Your task to perform on an android device: turn notification dots off Image 0: 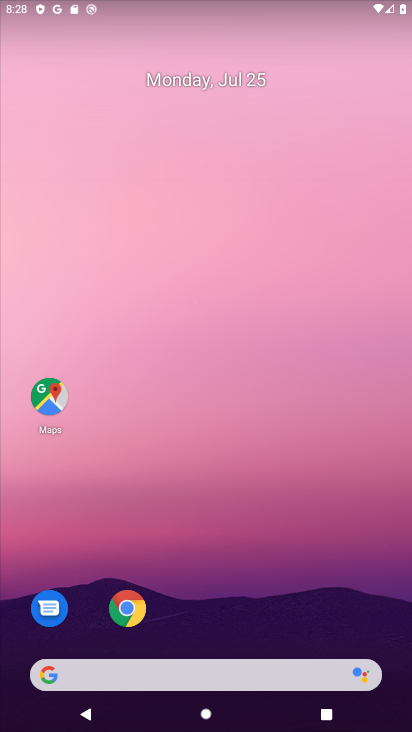
Step 0: drag from (204, 624) to (218, 81)
Your task to perform on an android device: turn notification dots off Image 1: 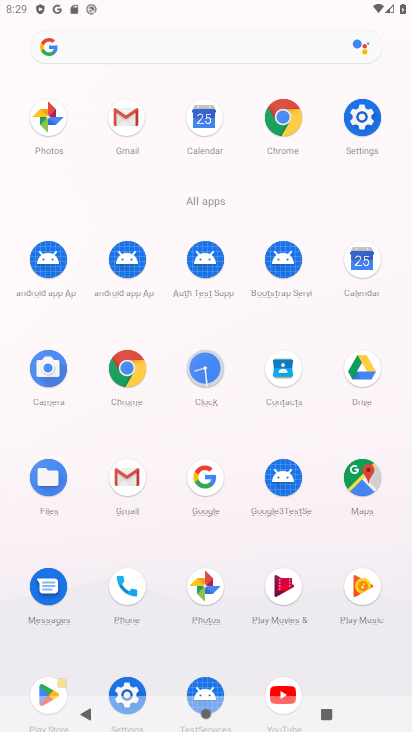
Step 1: click (361, 110)
Your task to perform on an android device: turn notification dots off Image 2: 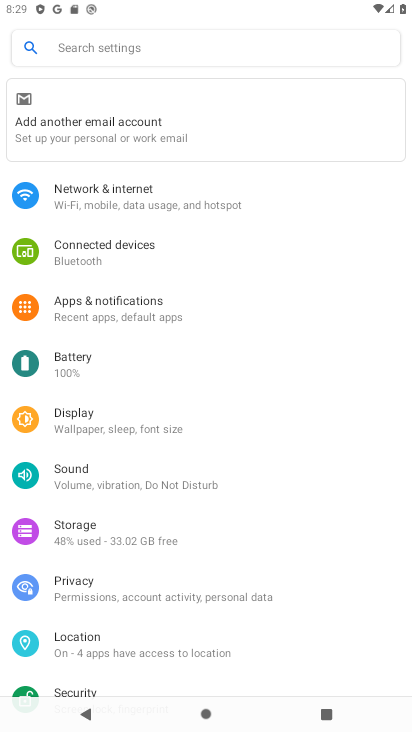
Step 2: click (140, 45)
Your task to perform on an android device: turn notification dots off Image 3: 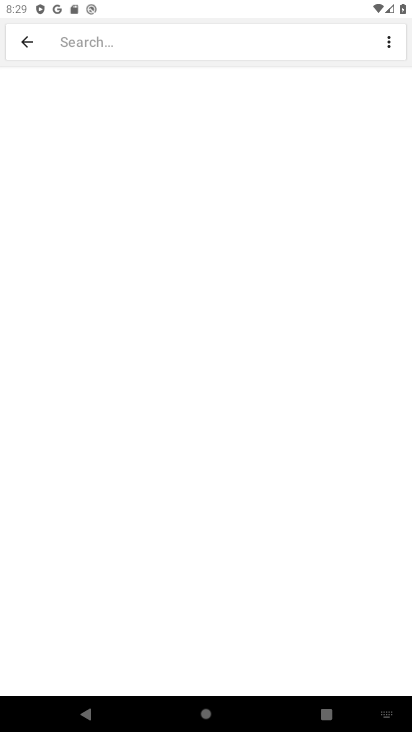
Step 3: click (179, 32)
Your task to perform on an android device: turn notification dots off Image 4: 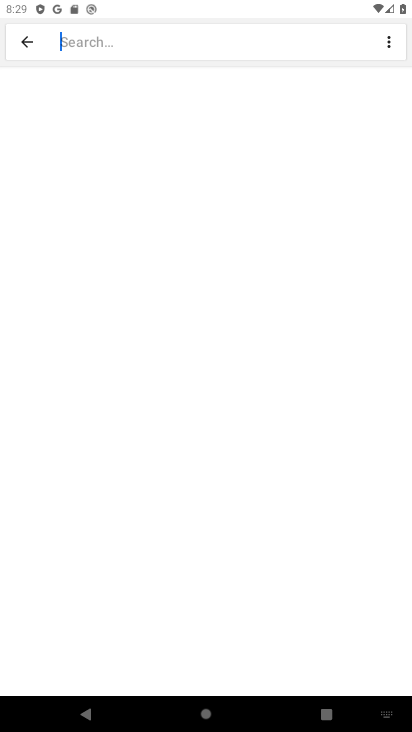
Step 4: type "notification dots "
Your task to perform on an android device: turn notification dots off Image 5: 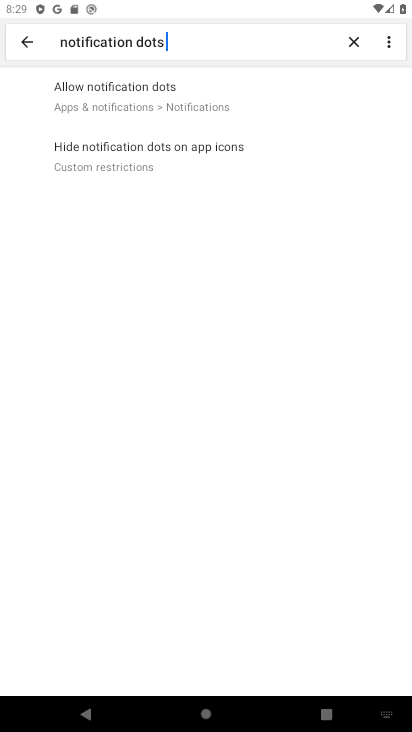
Step 5: click (107, 81)
Your task to perform on an android device: turn notification dots off Image 6: 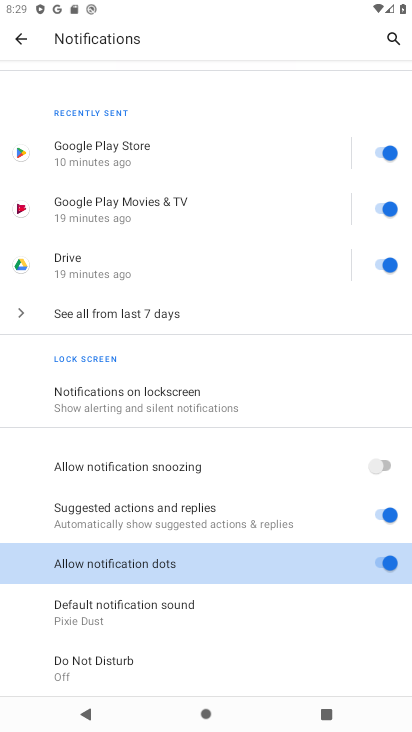
Step 6: click (374, 557)
Your task to perform on an android device: turn notification dots off Image 7: 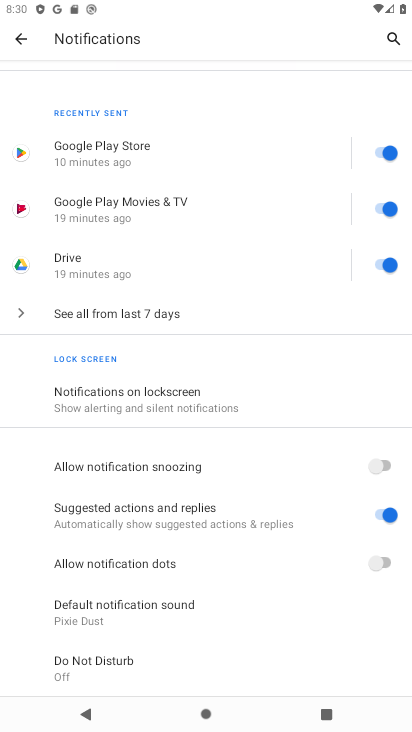
Step 7: task complete